Your task to perform on an android device: Open Chrome and go to the settings page Image 0: 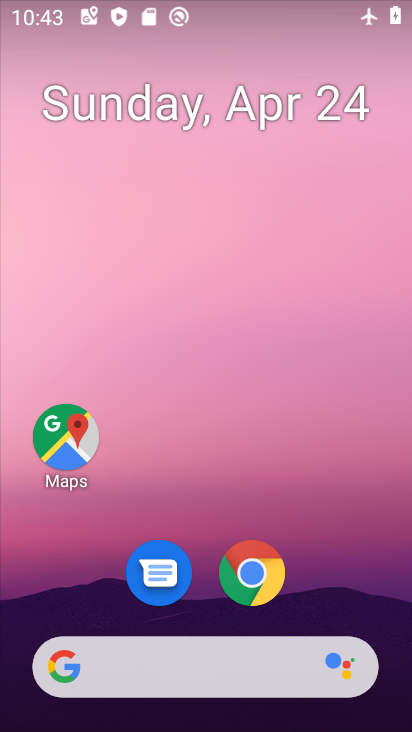
Step 0: click (244, 573)
Your task to perform on an android device: Open Chrome and go to the settings page Image 1: 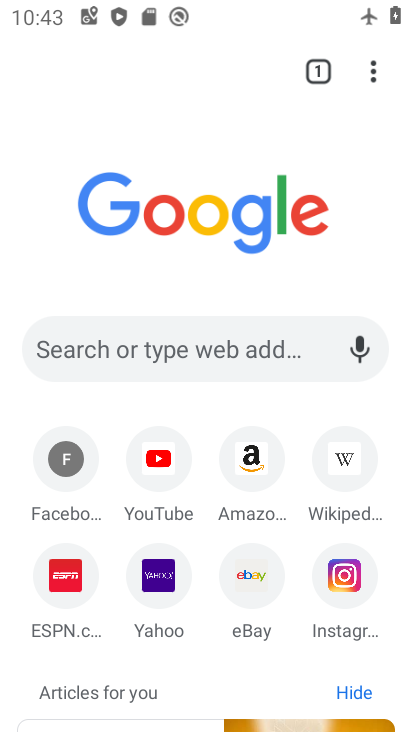
Step 1: click (376, 80)
Your task to perform on an android device: Open Chrome and go to the settings page Image 2: 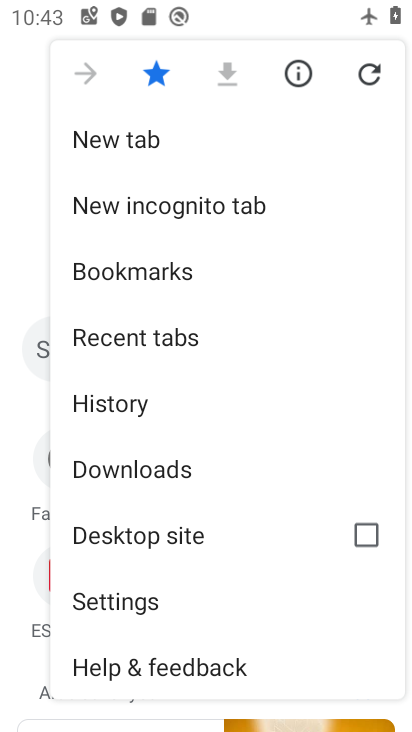
Step 2: click (161, 592)
Your task to perform on an android device: Open Chrome and go to the settings page Image 3: 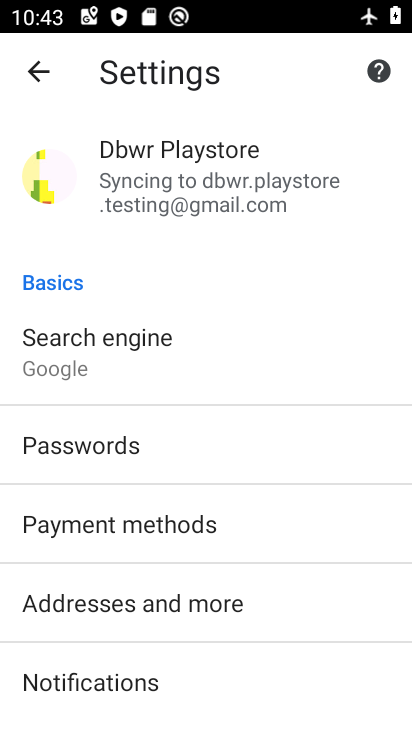
Step 3: task complete